Your task to perform on an android device: Open Google Chrome Image 0: 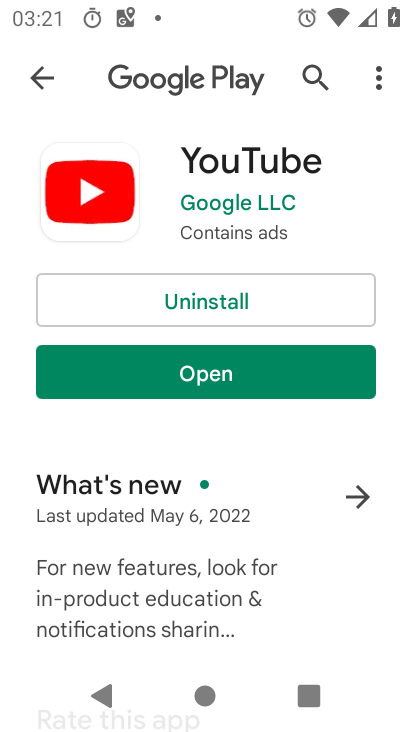
Step 0: press home button
Your task to perform on an android device: Open Google Chrome Image 1: 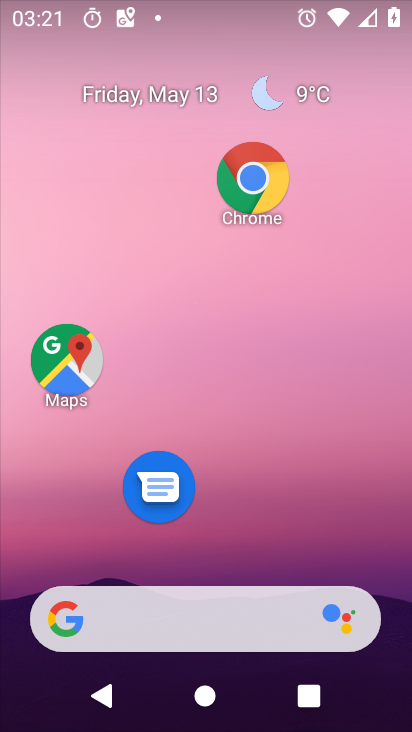
Step 1: click (253, 173)
Your task to perform on an android device: Open Google Chrome Image 2: 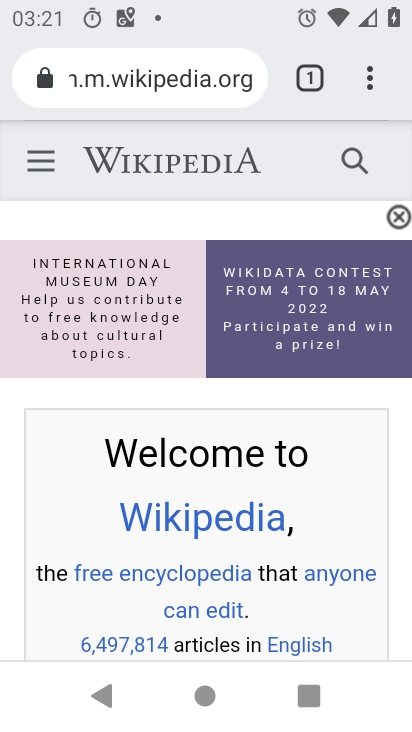
Step 2: task complete